Your task to perform on an android device: Search for seafood restaurants on Google Maps Image 0: 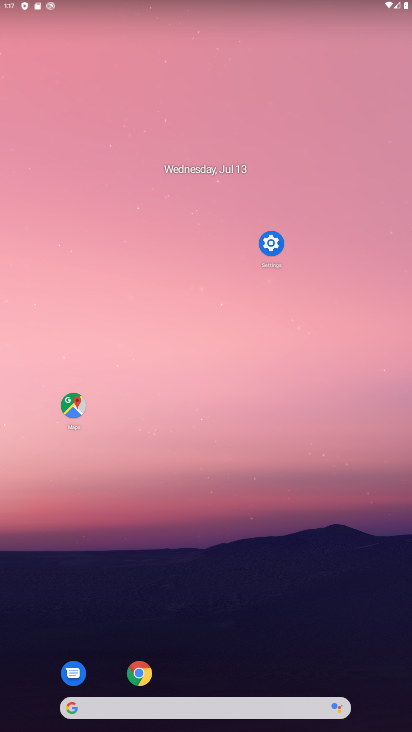
Step 0: drag from (187, 683) to (177, 126)
Your task to perform on an android device: Search for seafood restaurants on Google Maps Image 1: 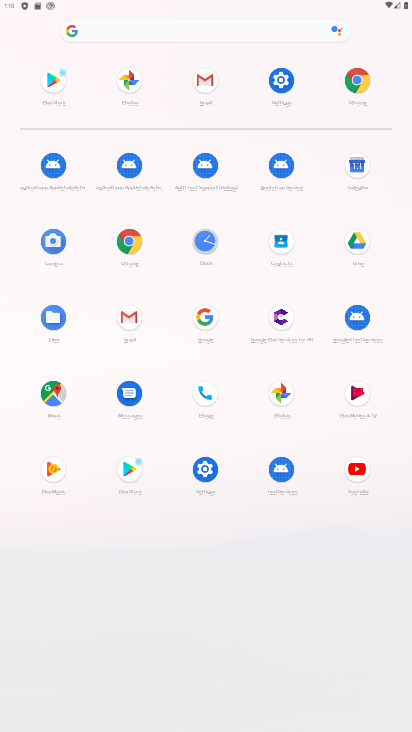
Step 1: click (59, 400)
Your task to perform on an android device: Search for seafood restaurants on Google Maps Image 2: 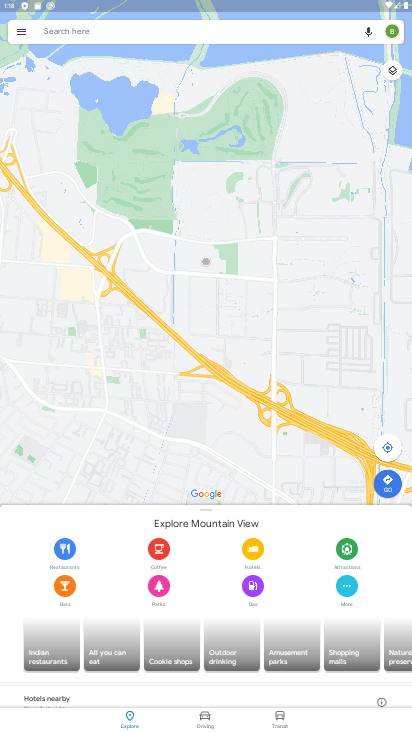
Step 2: click (115, 39)
Your task to perform on an android device: Search for seafood restaurants on Google Maps Image 3: 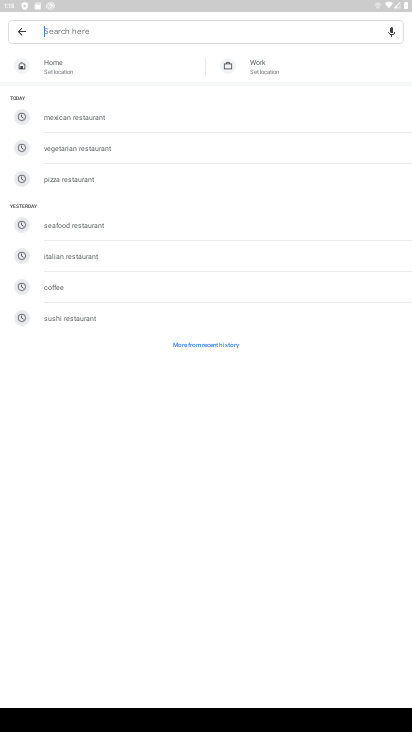
Step 3: type "seafood restaurants "
Your task to perform on an android device: Search for seafood restaurants on Google Maps Image 4: 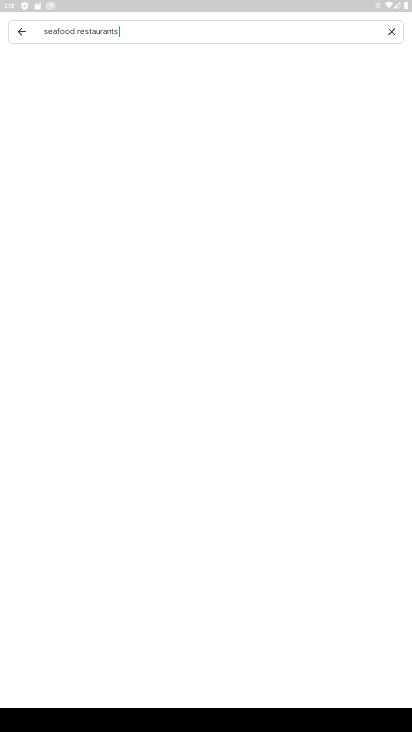
Step 4: type ""
Your task to perform on an android device: Search for seafood restaurants on Google Maps Image 5: 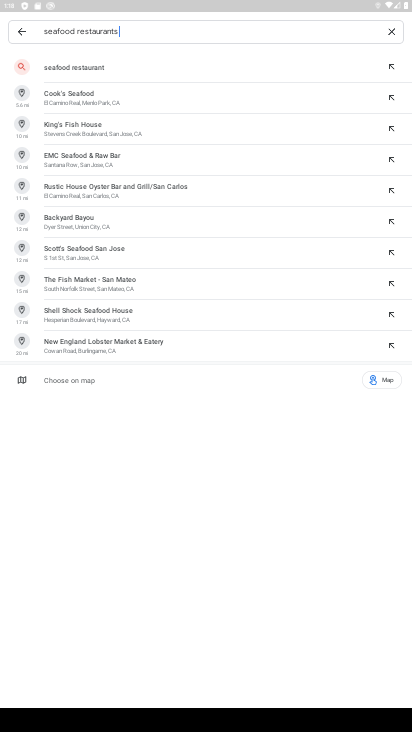
Step 5: click (61, 70)
Your task to perform on an android device: Search for seafood restaurants on Google Maps Image 6: 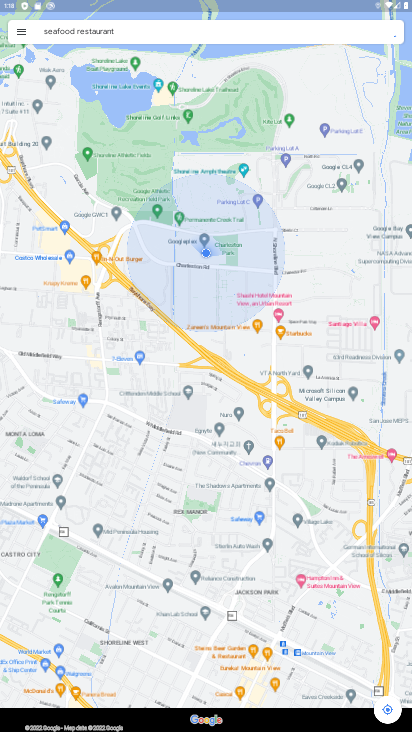
Step 6: task complete